Your task to perform on an android device: Open display settings Image 0: 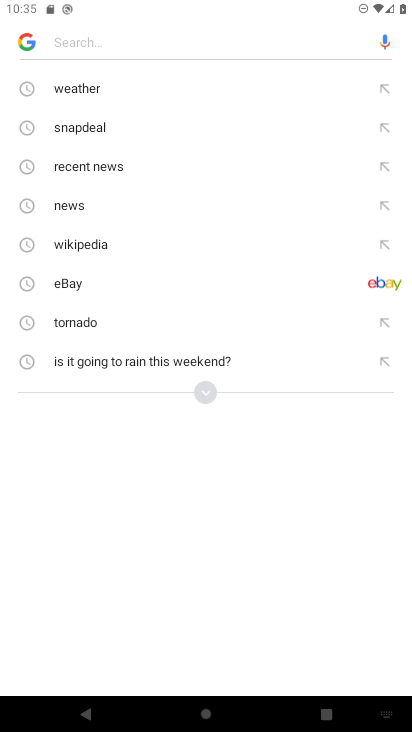
Step 0: press home button
Your task to perform on an android device: Open display settings Image 1: 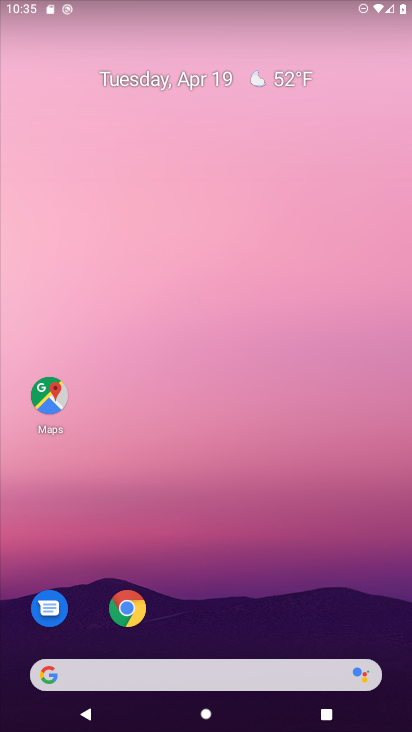
Step 1: drag from (365, 312) to (362, 48)
Your task to perform on an android device: Open display settings Image 2: 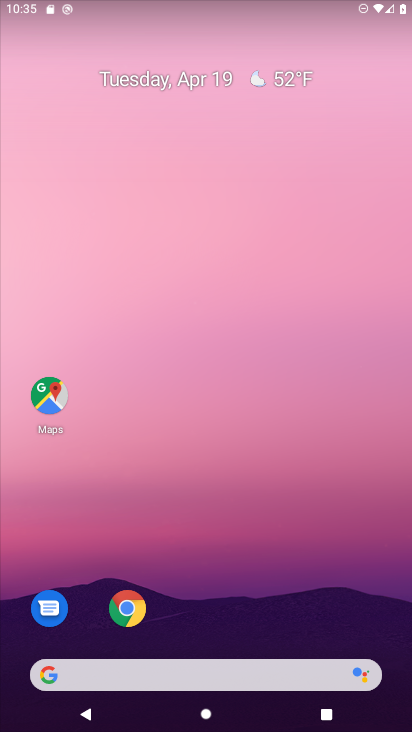
Step 2: drag from (339, 428) to (344, 140)
Your task to perform on an android device: Open display settings Image 3: 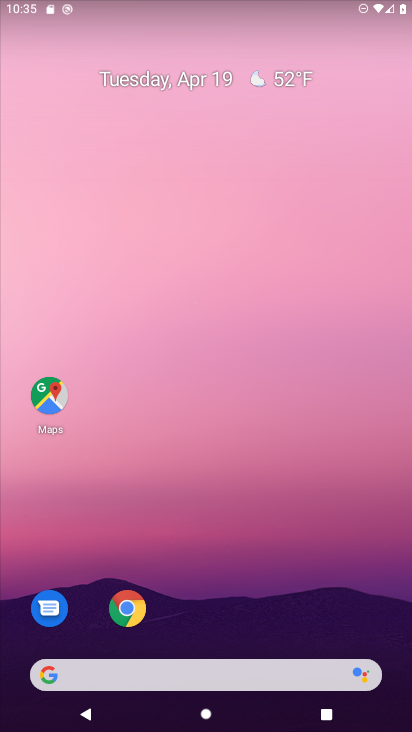
Step 3: drag from (341, 628) to (275, 91)
Your task to perform on an android device: Open display settings Image 4: 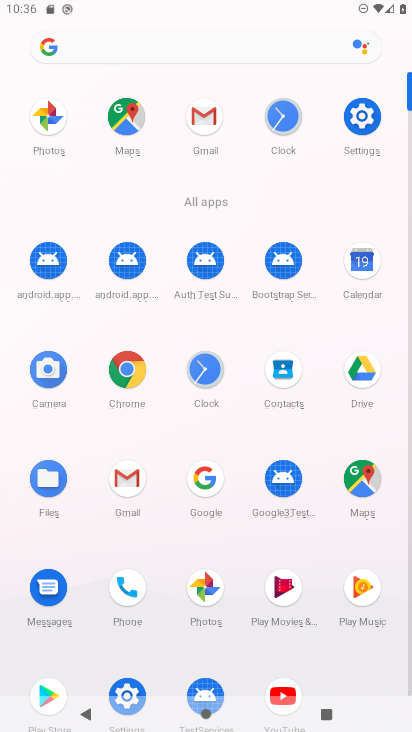
Step 4: click (357, 126)
Your task to perform on an android device: Open display settings Image 5: 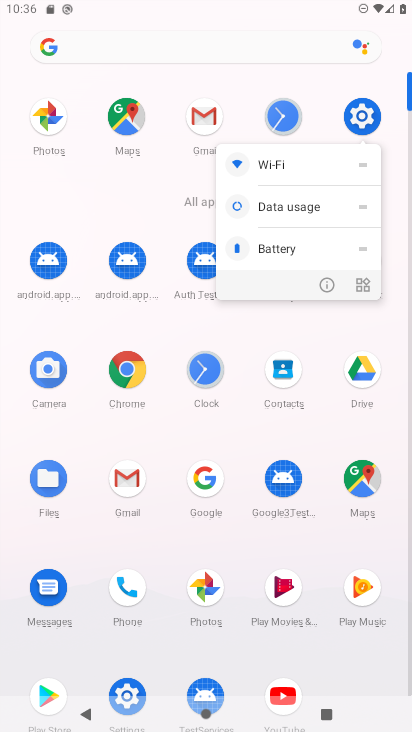
Step 5: click (357, 126)
Your task to perform on an android device: Open display settings Image 6: 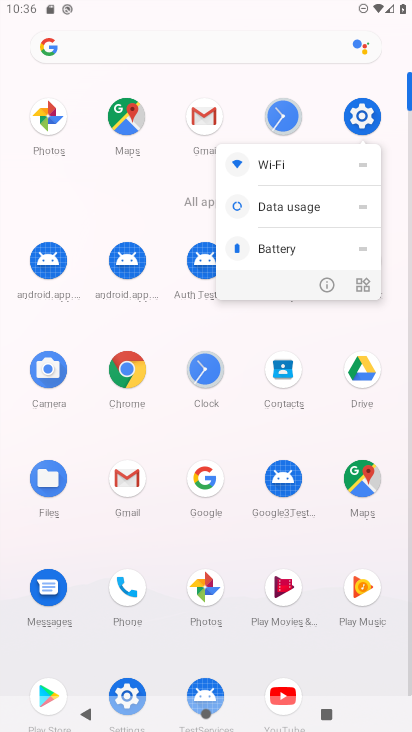
Step 6: click (357, 126)
Your task to perform on an android device: Open display settings Image 7: 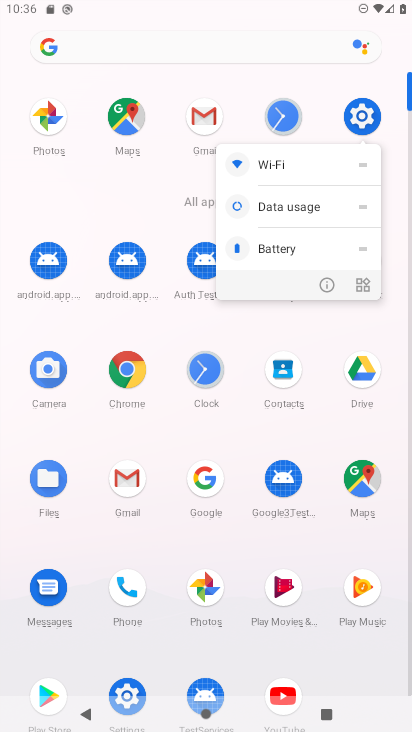
Step 7: click (353, 110)
Your task to perform on an android device: Open display settings Image 8: 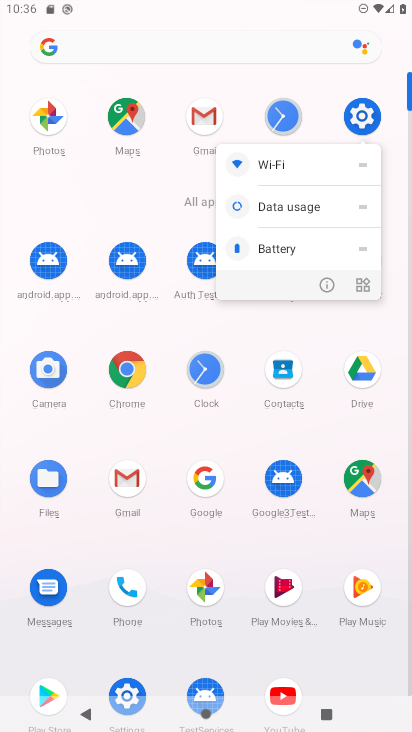
Step 8: click (353, 110)
Your task to perform on an android device: Open display settings Image 9: 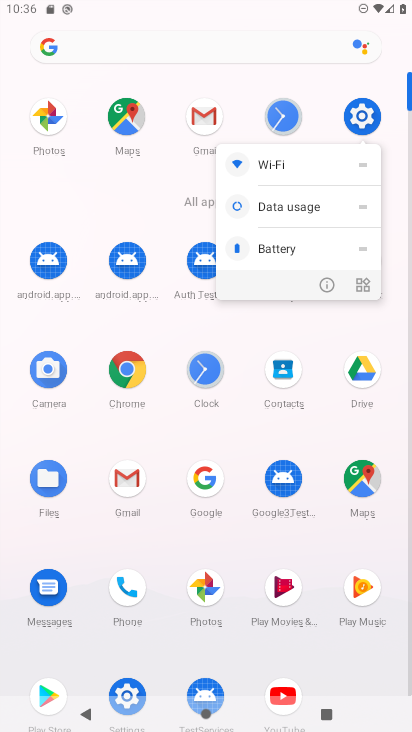
Step 9: click (353, 110)
Your task to perform on an android device: Open display settings Image 10: 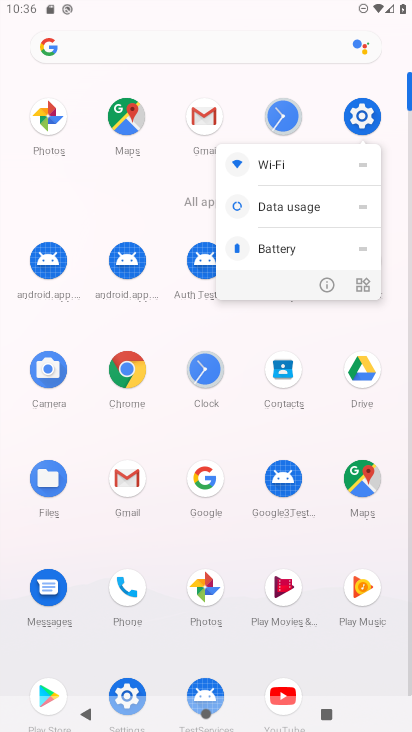
Step 10: click (368, 124)
Your task to perform on an android device: Open display settings Image 11: 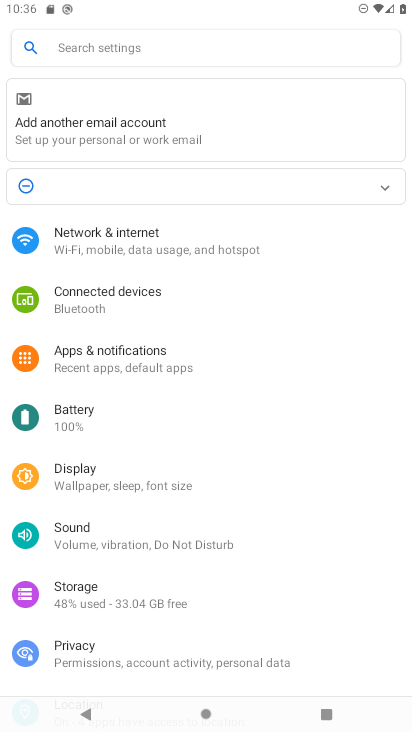
Step 11: click (157, 488)
Your task to perform on an android device: Open display settings Image 12: 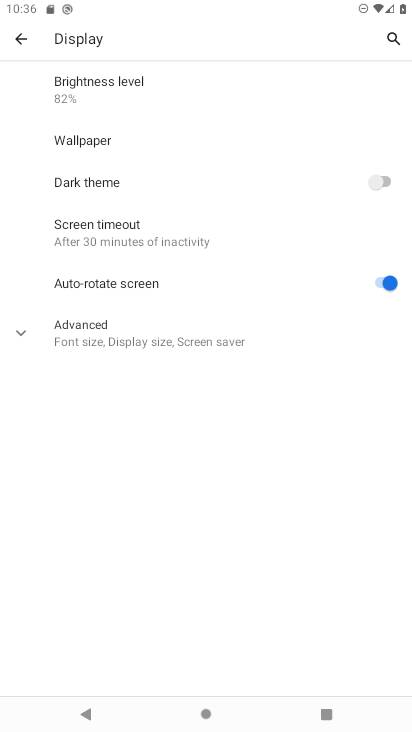
Step 12: task complete